Your task to perform on an android device: turn off priority inbox in the gmail app Image 0: 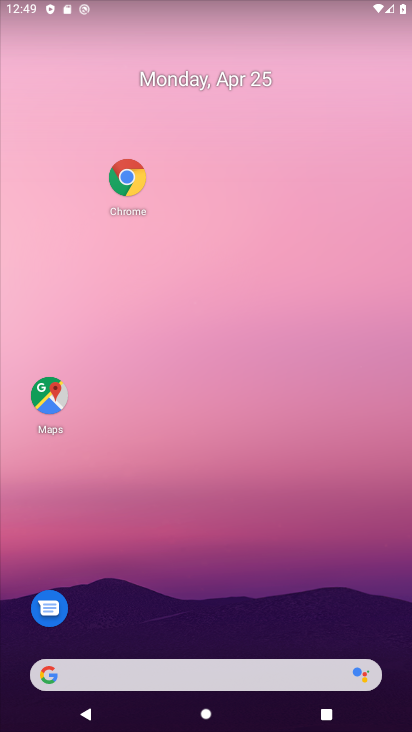
Step 0: drag from (257, 454) to (317, 3)
Your task to perform on an android device: turn off priority inbox in the gmail app Image 1: 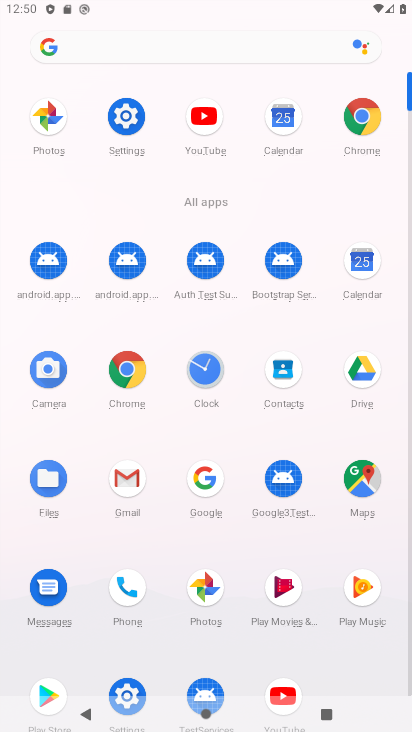
Step 1: click (123, 477)
Your task to perform on an android device: turn off priority inbox in the gmail app Image 2: 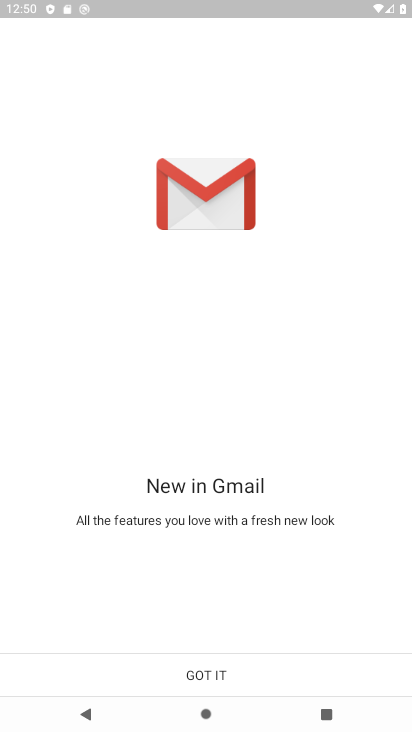
Step 2: click (240, 676)
Your task to perform on an android device: turn off priority inbox in the gmail app Image 3: 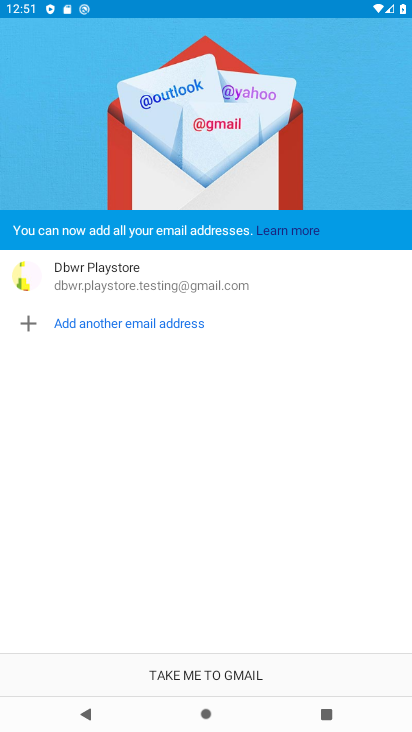
Step 3: click (113, 267)
Your task to perform on an android device: turn off priority inbox in the gmail app Image 4: 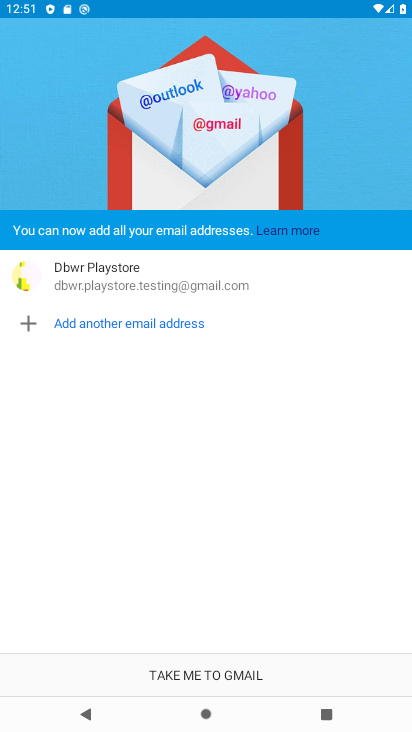
Step 4: click (243, 680)
Your task to perform on an android device: turn off priority inbox in the gmail app Image 5: 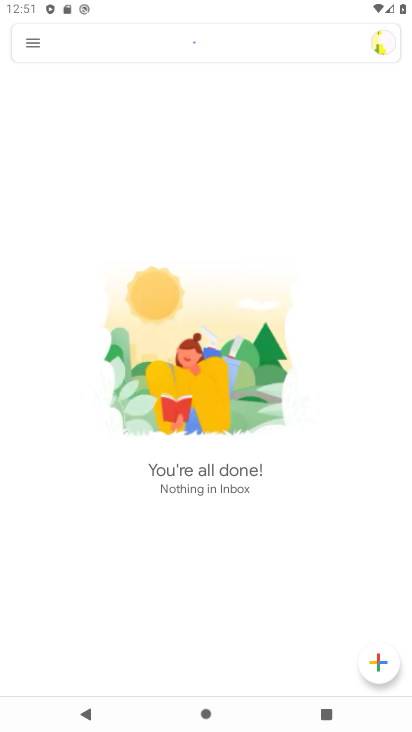
Step 5: click (27, 47)
Your task to perform on an android device: turn off priority inbox in the gmail app Image 6: 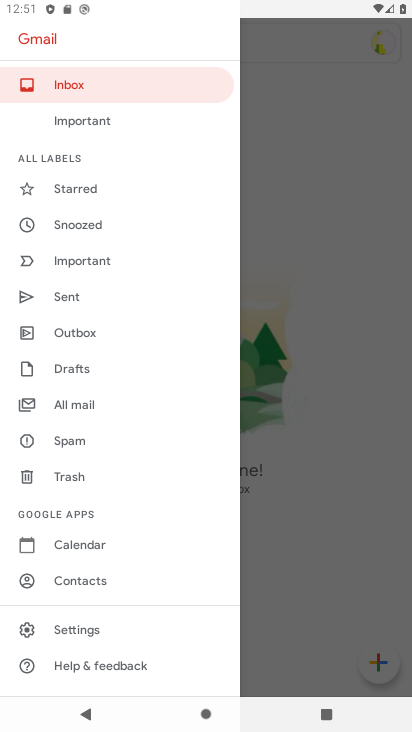
Step 6: click (77, 640)
Your task to perform on an android device: turn off priority inbox in the gmail app Image 7: 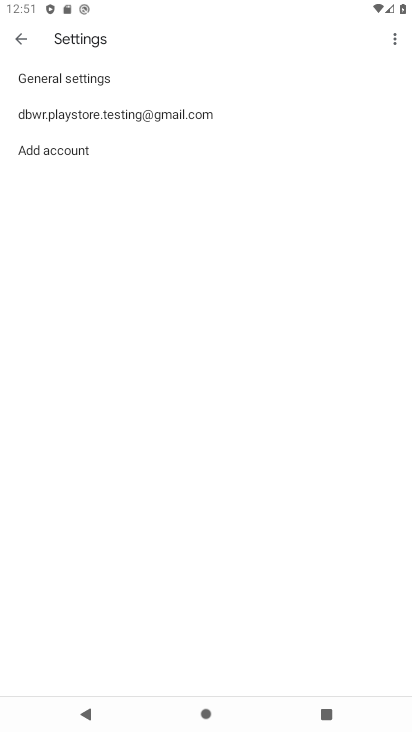
Step 7: click (140, 121)
Your task to perform on an android device: turn off priority inbox in the gmail app Image 8: 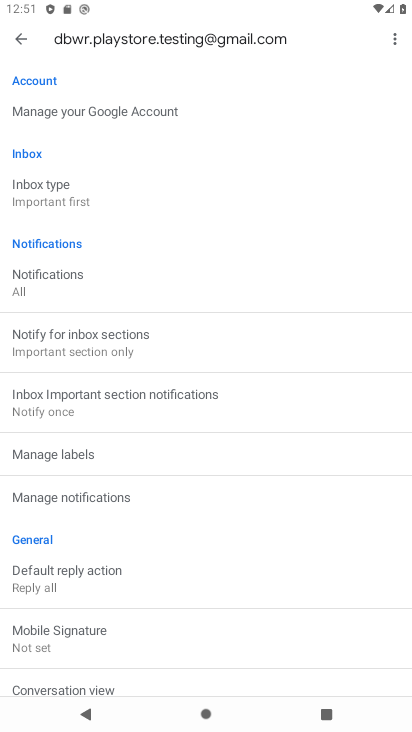
Step 8: click (53, 192)
Your task to perform on an android device: turn off priority inbox in the gmail app Image 9: 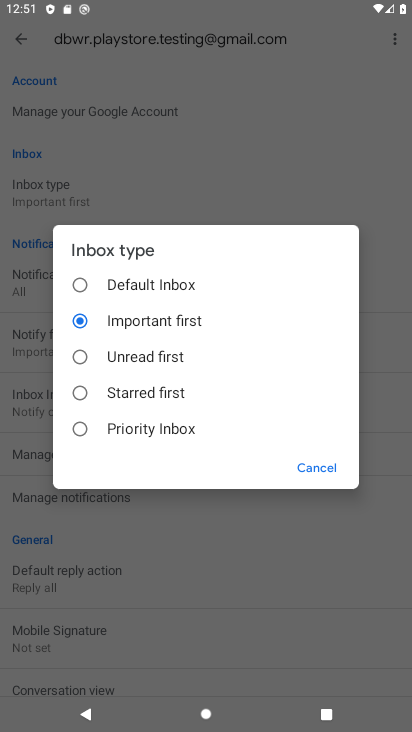
Step 9: task complete